Your task to perform on an android device: turn off notifications in google photos Image 0: 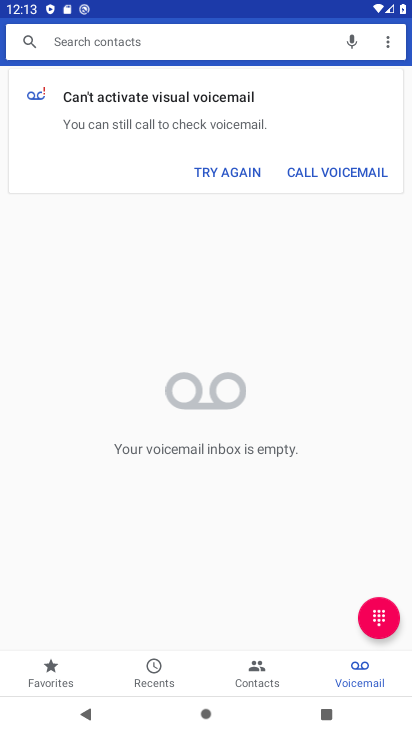
Step 0: press home button
Your task to perform on an android device: turn off notifications in google photos Image 1: 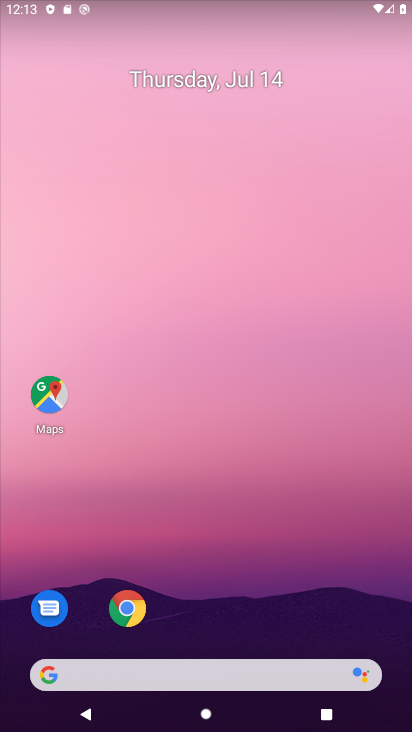
Step 1: drag from (249, 601) to (226, 11)
Your task to perform on an android device: turn off notifications in google photos Image 2: 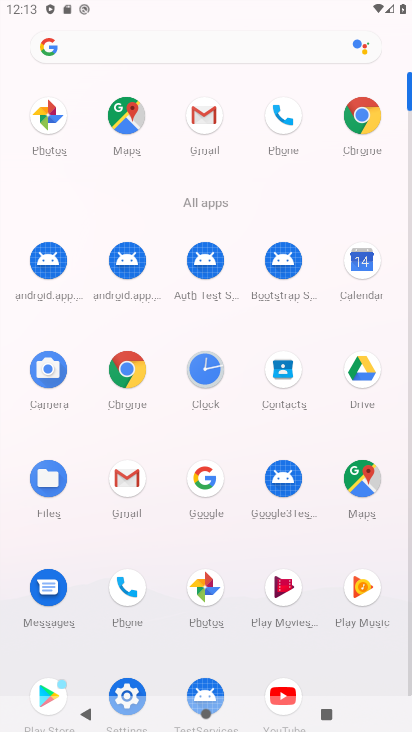
Step 2: click (40, 117)
Your task to perform on an android device: turn off notifications in google photos Image 3: 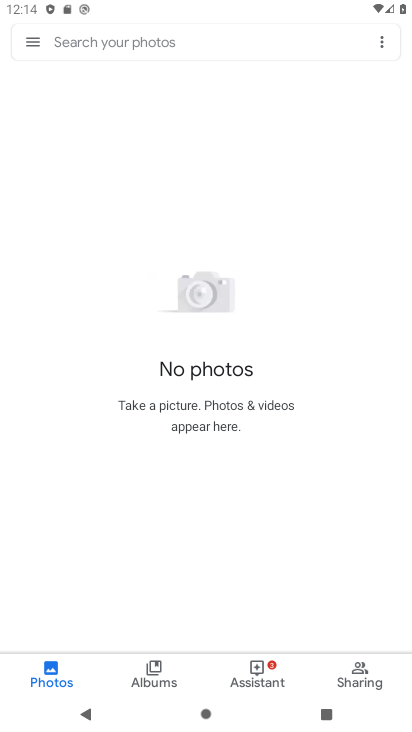
Step 3: click (38, 53)
Your task to perform on an android device: turn off notifications in google photos Image 4: 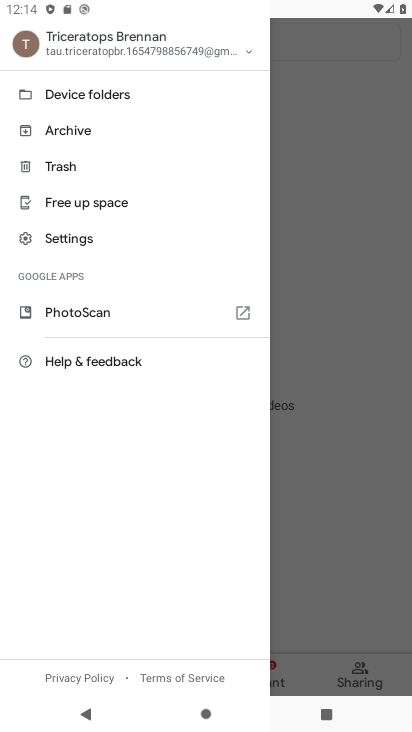
Step 4: click (63, 233)
Your task to perform on an android device: turn off notifications in google photos Image 5: 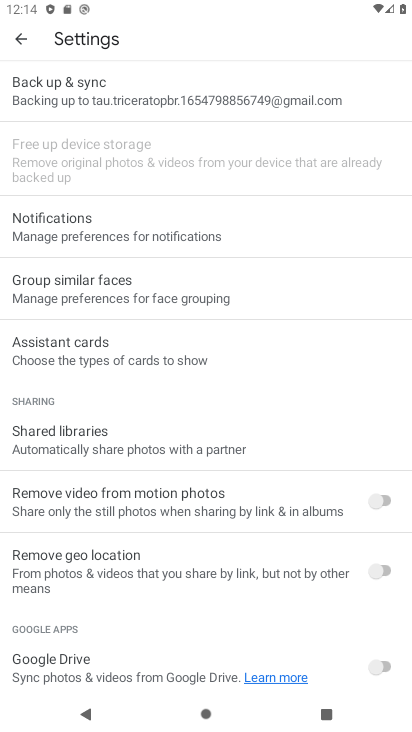
Step 5: click (96, 235)
Your task to perform on an android device: turn off notifications in google photos Image 6: 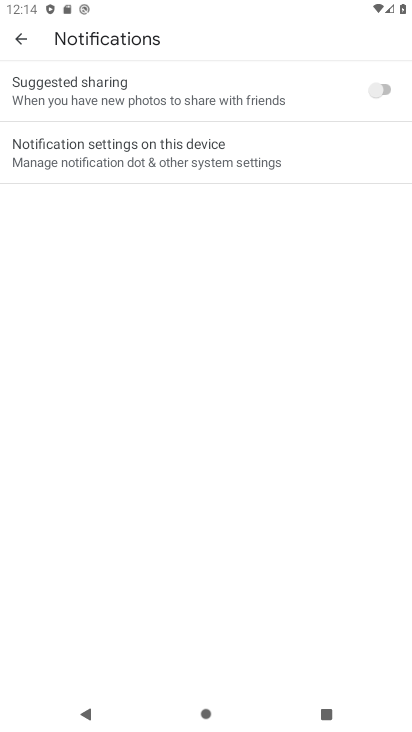
Step 6: click (268, 162)
Your task to perform on an android device: turn off notifications in google photos Image 7: 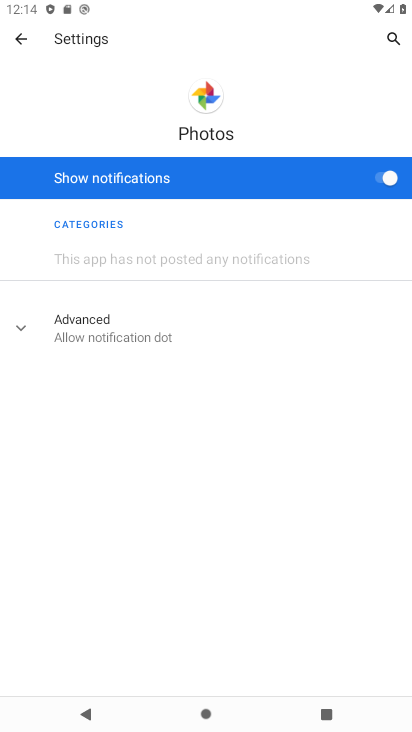
Step 7: click (389, 172)
Your task to perform on an android device: turn off notifications in google photos Image 8: 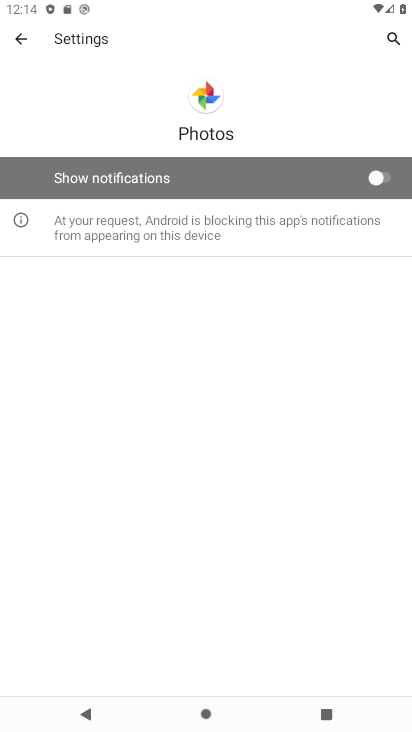
Step 8: task complete